Your task to perform on an android device: add a label to a message in the gmail app Image 0: 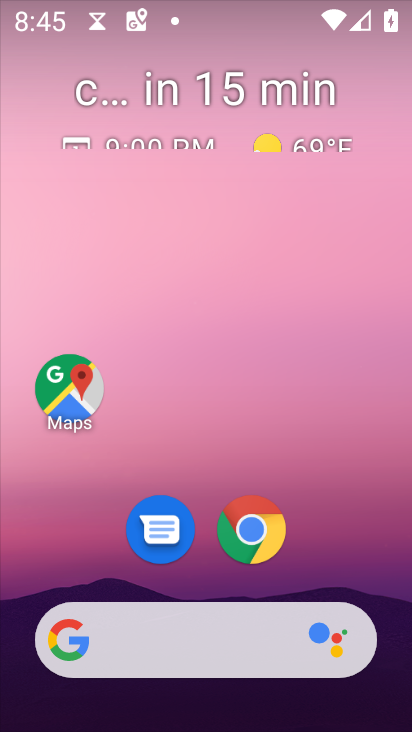
Step 0: drag from (301, 448) to (286, 75)
Your task to perform on an android device: add a label to a message in the gmail app Image 1: 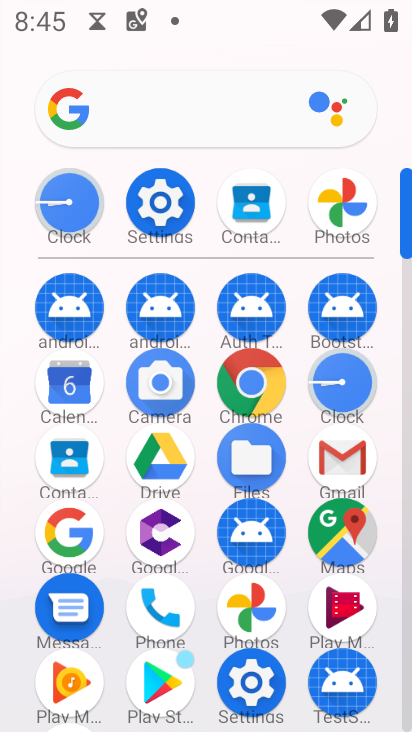
Step 1: click (342, 474)
Your task to perform on an android device: add a label to a message in the gmail app Image 2: 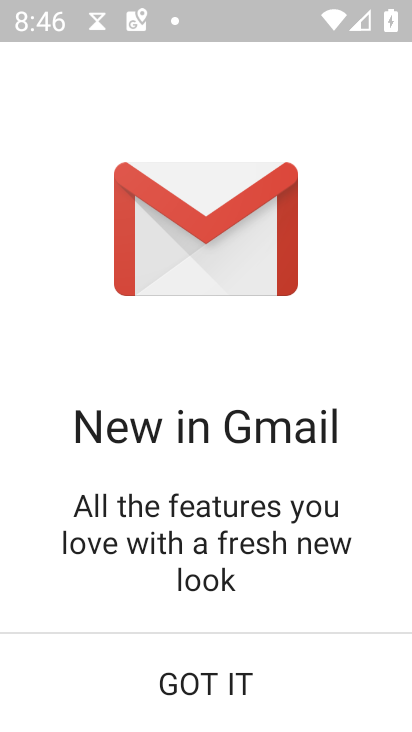
Step 2: click (196, 650)
Your task to perform on an android device: add a label to a message in the gmail app Image 3: 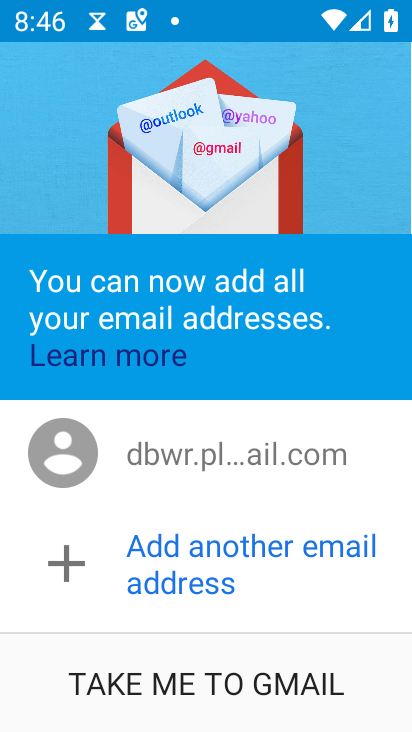
Step 3: click (201, 678)
Your task to perform on an android device: add a label to a message in the gmail app Image 4: 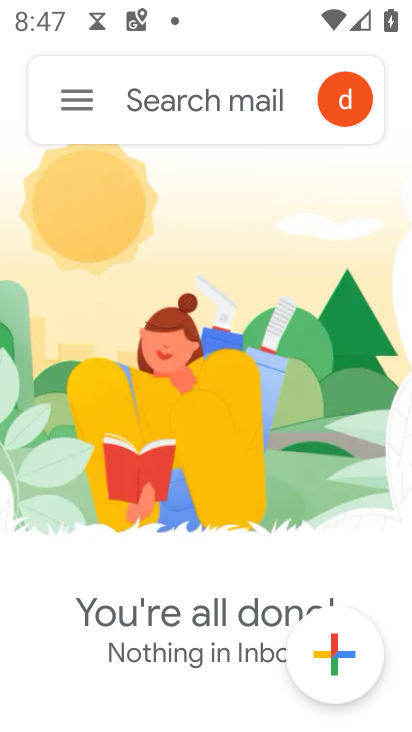
Step 4: click (71, 96)
Your task to perform on an android device: add a label to a message in the gmail app Image 5: 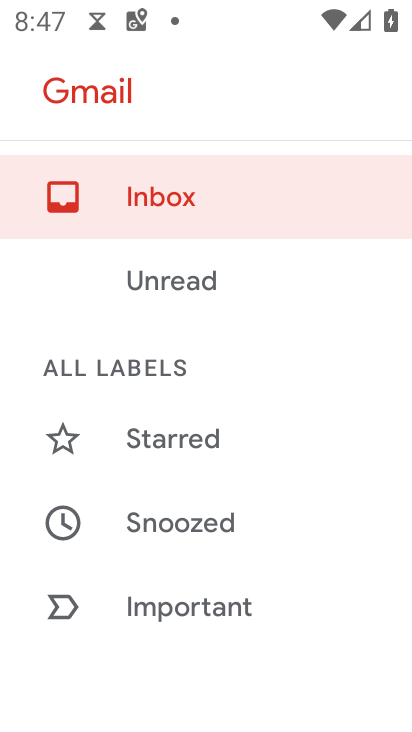
Step 5: drag from (278, 616) to (284, 160)
Your task to perform on an android device: add a label to a message in the gmail app Image 6: 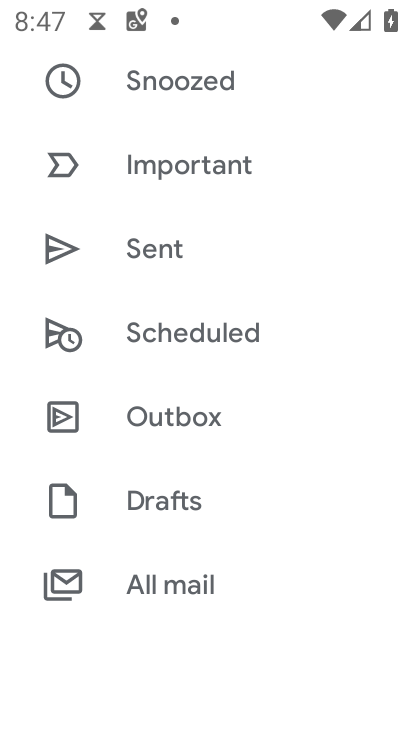
Step 6: drag from (281, 577) to (266, 274)
Your task to perform on an android device: add a label to a message in the gmail app Image 7: 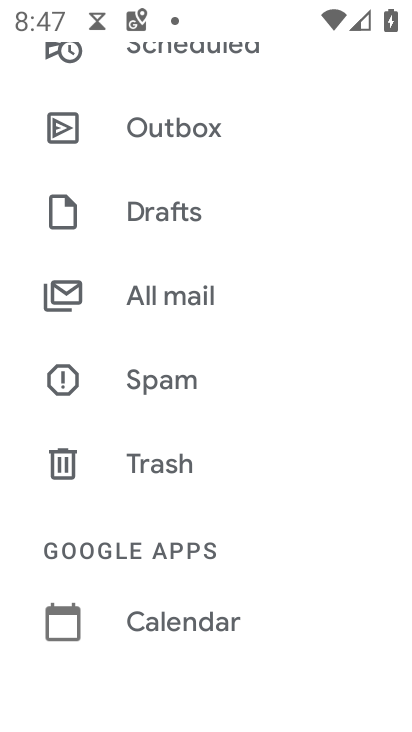
Step 7: click (195, 293)
Your task to perform on an android device: add a label to a message in the gmail app Image 8: 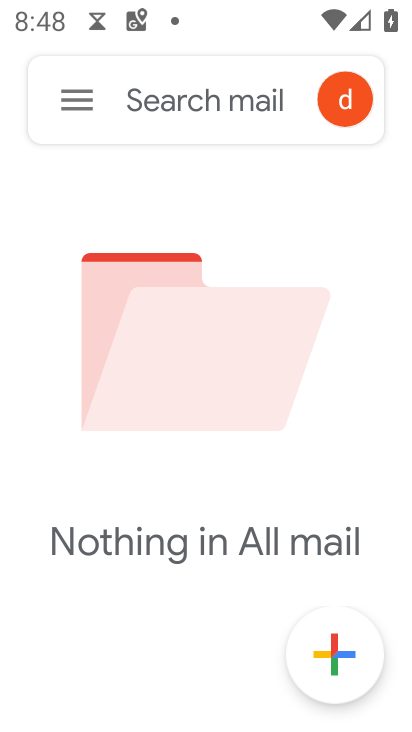
Step 8: click (81, 93)
Your task to perform on an android device: add a label to a message in the gmail app Image 9: 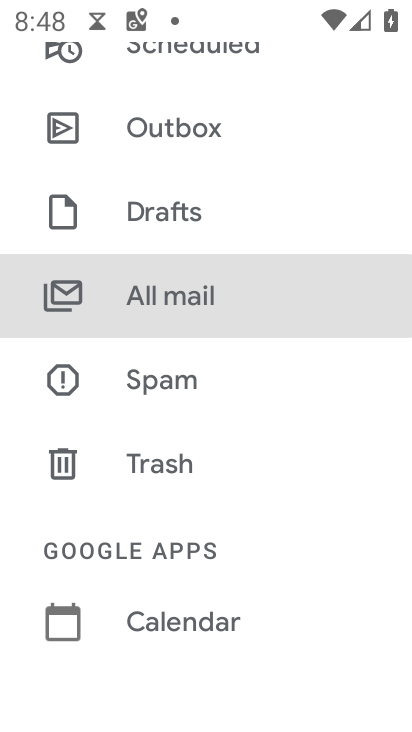
Step 9: click (151, 313)
Your task to perform on an android device: add a label to a message in the gmail app Image 10: 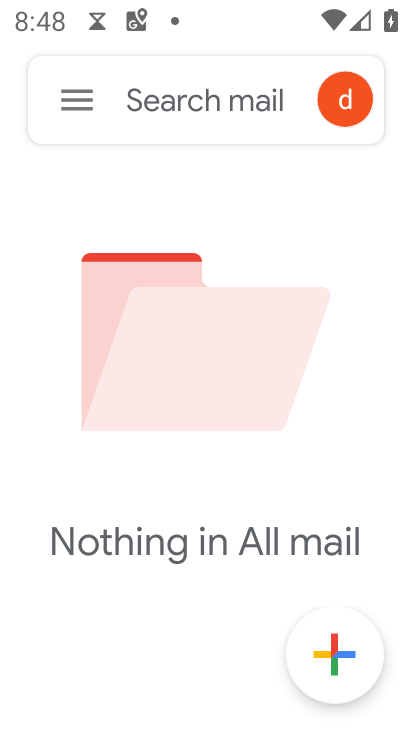
Step 10: task complete